Your task to perform on an android device: Show me popular videos on Youtube Image 0: 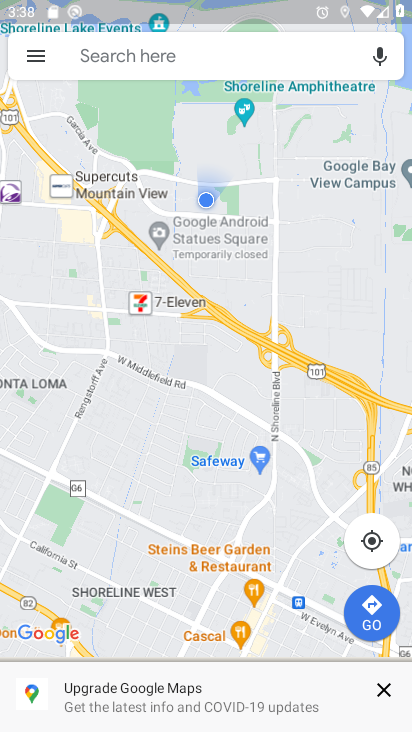
Step 0: press home button
Your task to perform on an android device: Show me popular videos on Youtube Image 1: 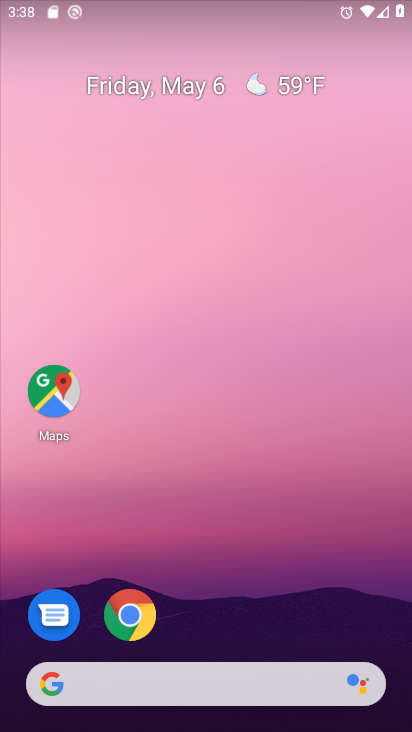
Step 1: drag from (318, 633) to (344, 28)
Your task to perform on an android device: Show me popular videos on Youtube Image 2: 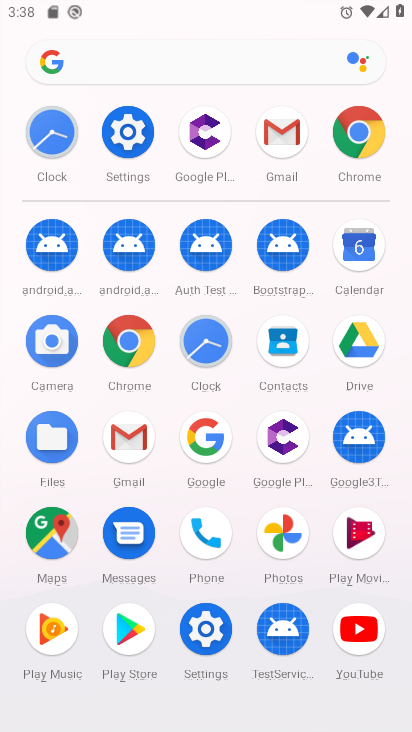
Step 2: click (360, 628)
Your task to perform on an android device: Show me popular videos on Youtube Image 3: 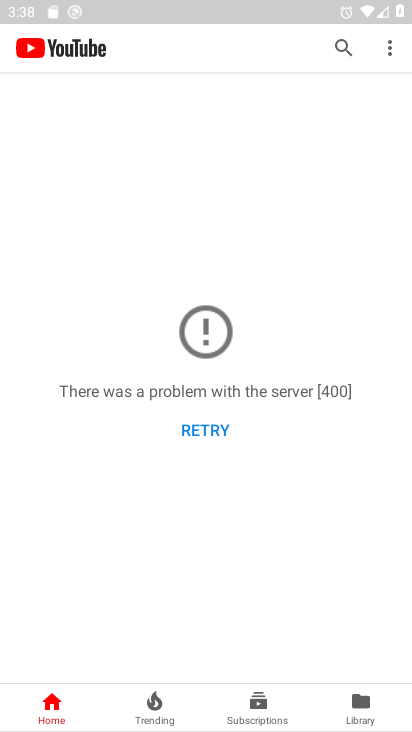
Step 3: task complete